Your task to perform on an android device: toggle notification dots Image 0: 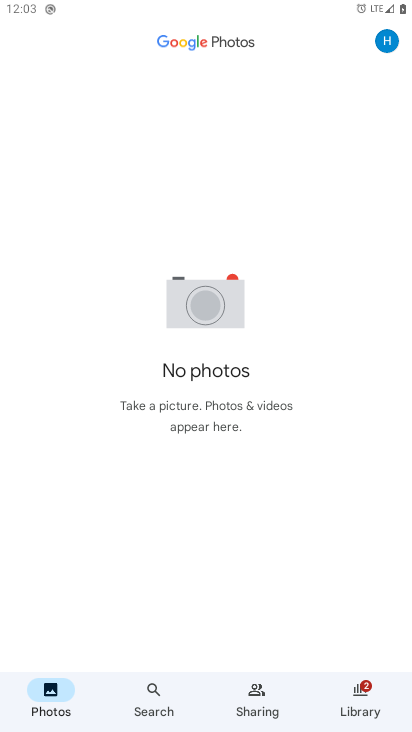
Step 0: press home button
Your task to perform on an android device: toggle notification dots Image 1: 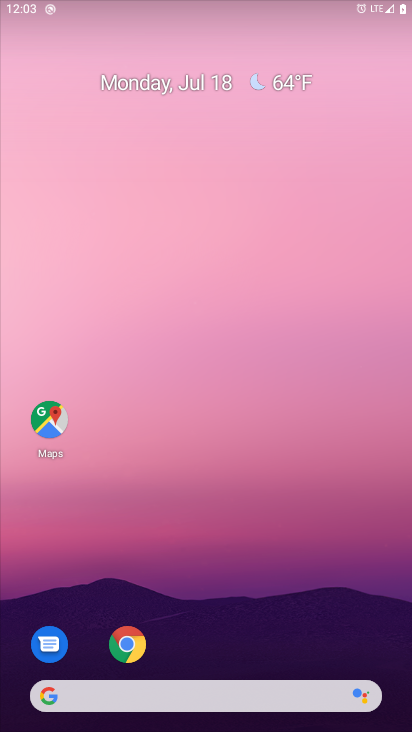
Step 1: drag from (265, 601) to (292, 217)
Your task to perform on an android device: toggle notification dots Image 2: 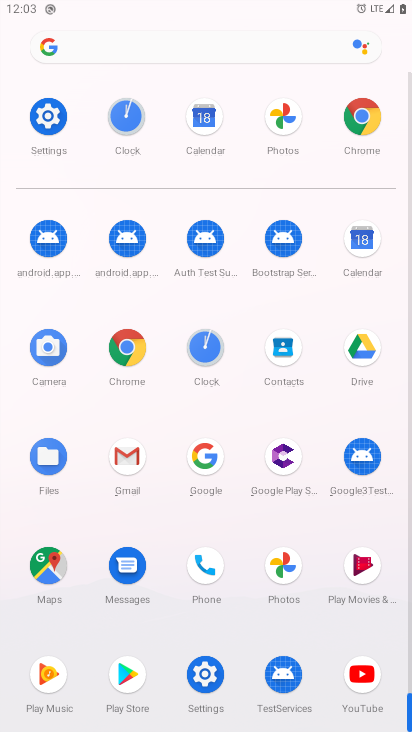
Step 2: click (49, 119)
Your task to perform on an android device: toggle notification dots Image 3: 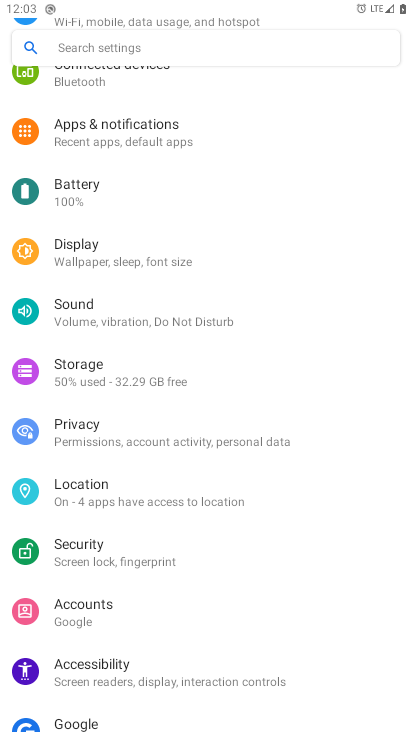
Step 3: click (142, 131)
Your task to perform on an android device: toggle notification dots Image 4: 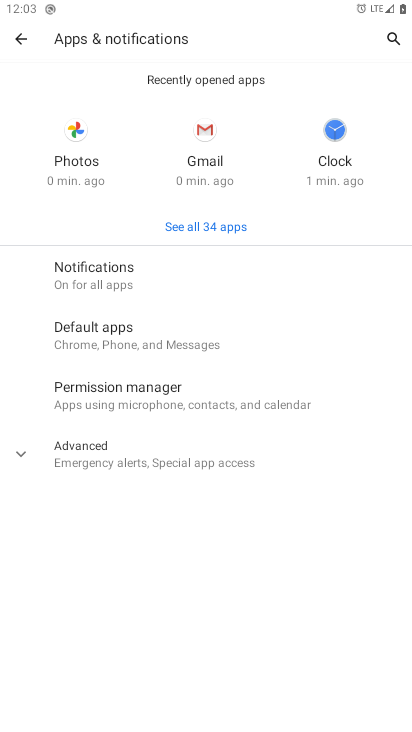
Step 4: click (81, 275)
Your task to perform on an android device: toggle notification dots Image 5: 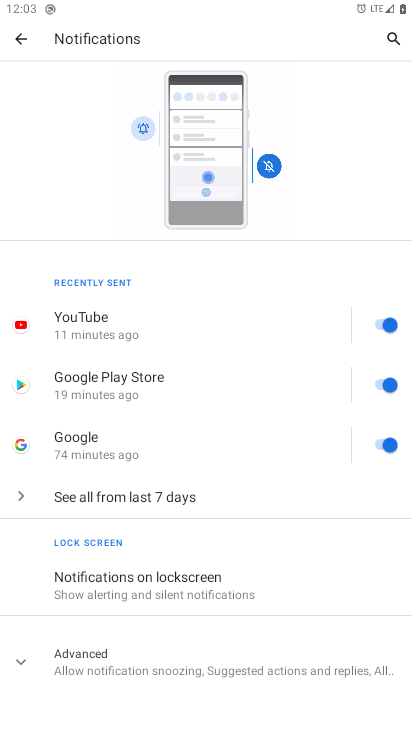
Step 5: click (17, 664)
Your task to perform on an android device: toggle notification dots Image 6: 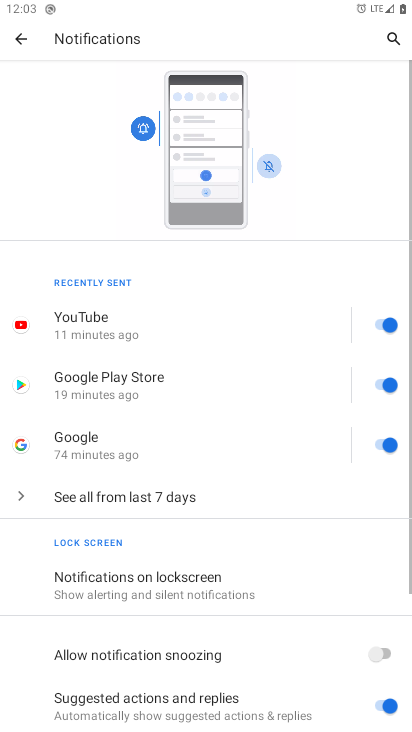
Step 6: drag from (297, 563) to (309, 203)
Your task to perform on an android device: toggle notification dots Image 7: 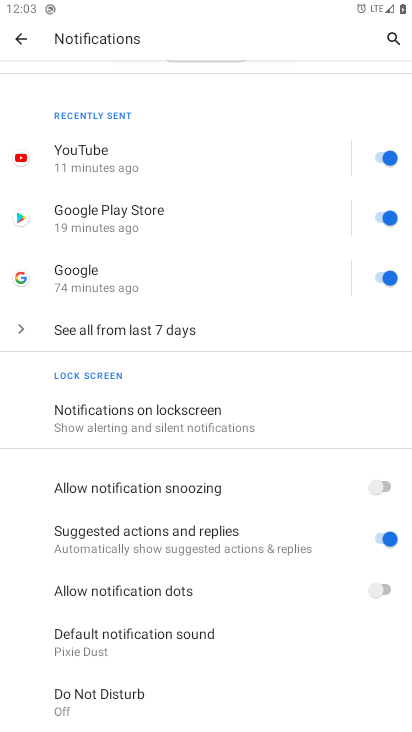
Step 7: click (385, 585)
Your task to perform on an android device: toggle notification dots Image 8: 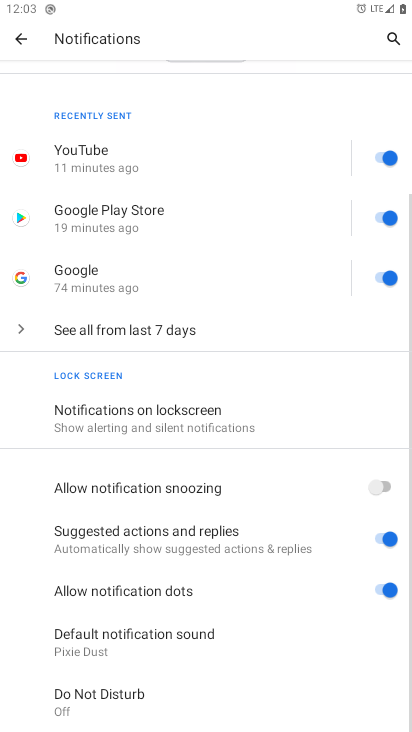
Step 8: task complete